Your task to perform on an android device: Open Chrome and go to settings Image 0: 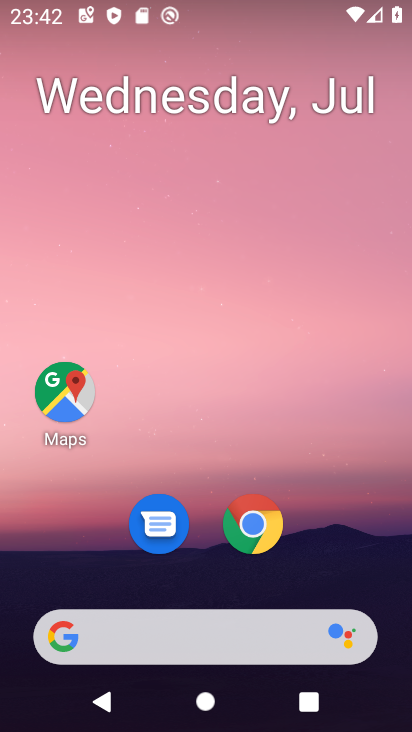
Step 0: click (256, 516)
Your task to perform on an android device: Open Chrome and go to settings Image 1: 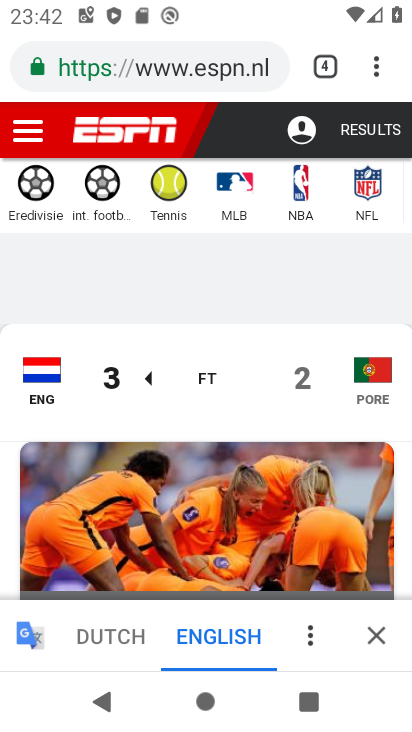
Step 1: task complete